Your task to perform on an android device: Go to location settings Image 0: 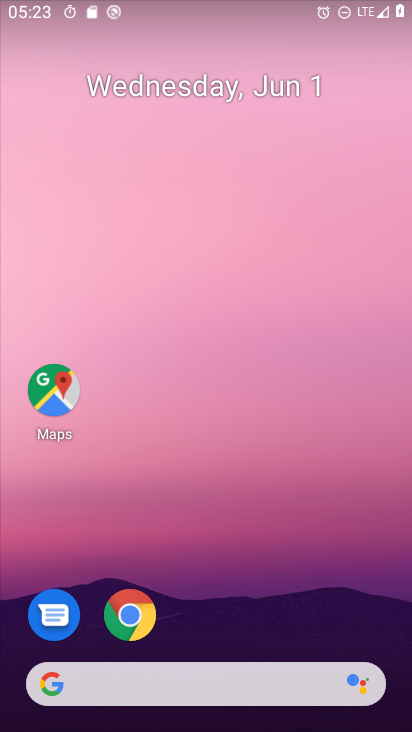
Step 0: drag from (305, 662) to (294, 46)
Your task to perform on an android device: Go to location settings Image 1: 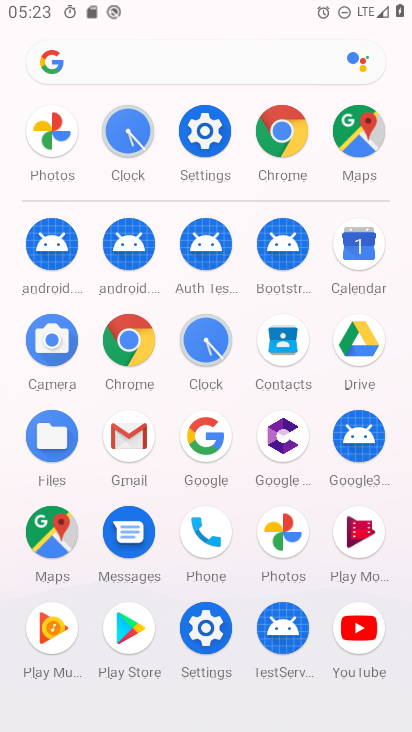
Step 1: click (201, 144)
Your task to perform on an android device: Go to location settings Image 2: 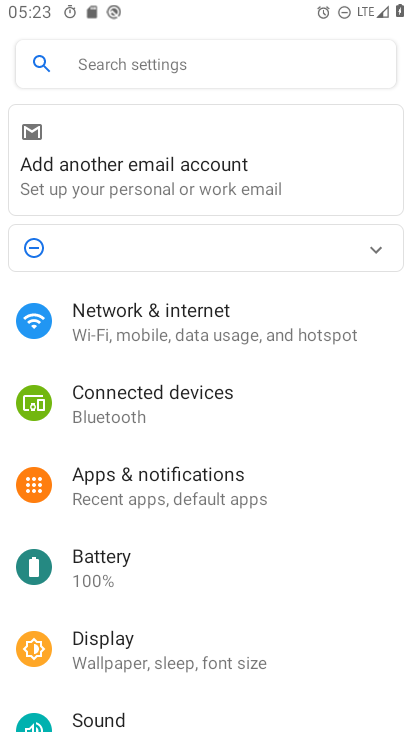
Step 2: drag from (212, 631) to (244, 7)
Your task to perform on an android device: Go to location settings Image 3: 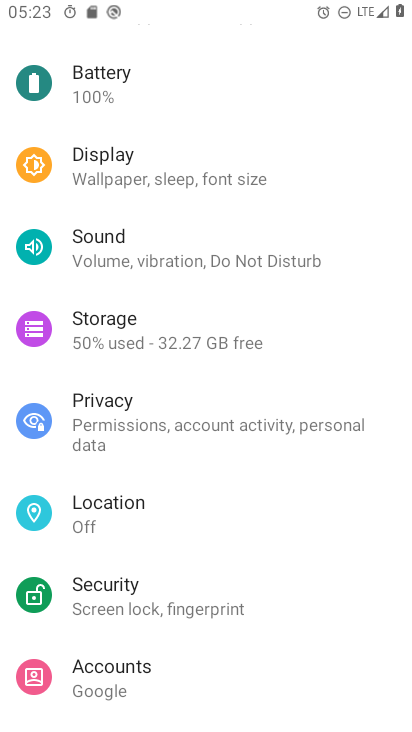
Step 3: click (121, 512)
Your task to perform on an android device: Go to location settings Image 4: 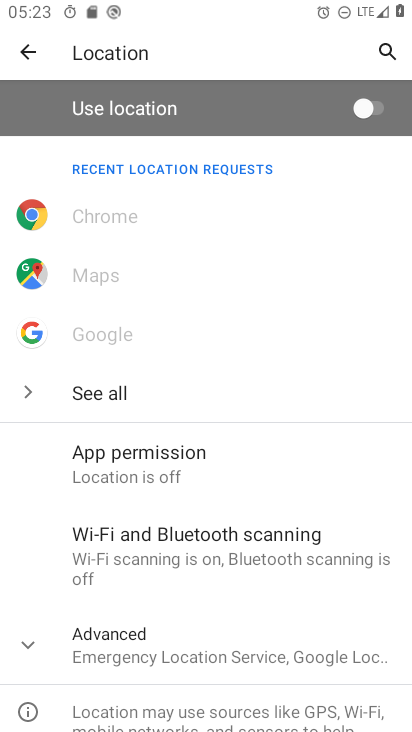
Step 4: task complete